Your task to perform on an android device: turn off location Image 0: 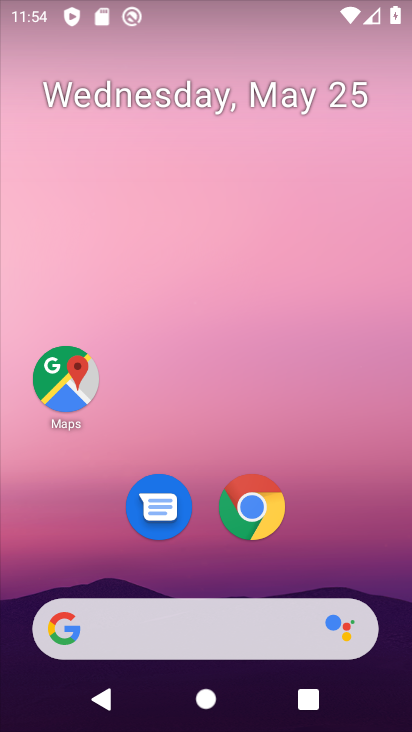
Step 0: drag from (212, 565) to (231, 137)
Your task to perform on an android device: turn off location Image 1: 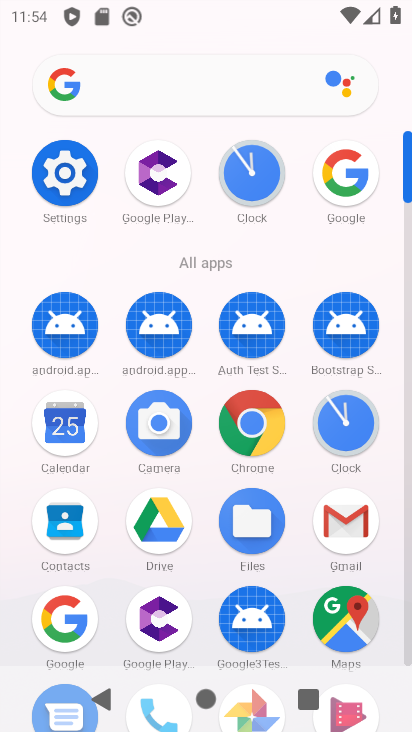
Step 1: click (67, 172)
Your task to perform on an android device: turn off location Image 2: 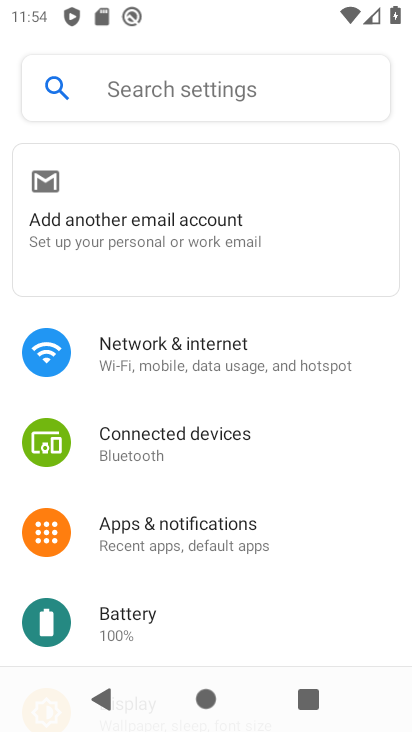
Step 2: drag from (180, 606) to (230, 173)
Your task to perform on an android device: turn off location Image 3: 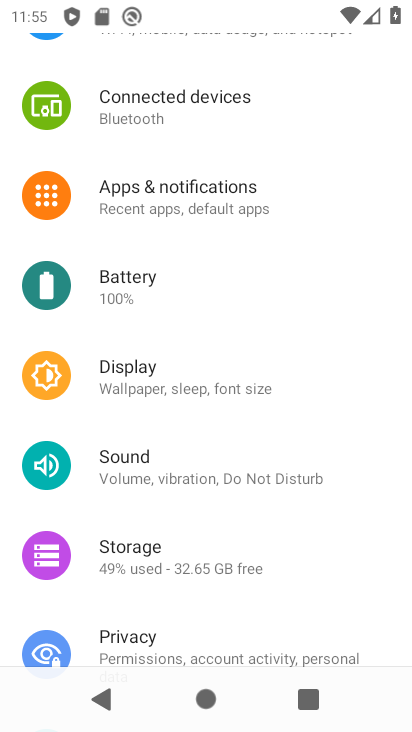
Step 3: drag from (175, 632) to (211, 266)
Your task to perform on an android device: turn off location Image 4: 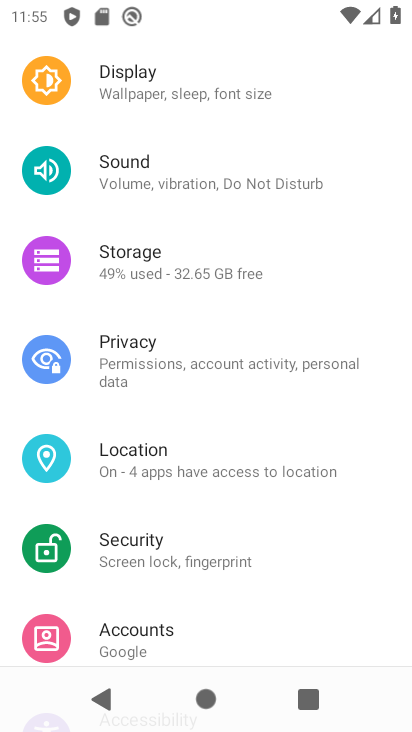
Step 4: click (200, 456)
Your task to perform on an android device: turn off location Image 5: 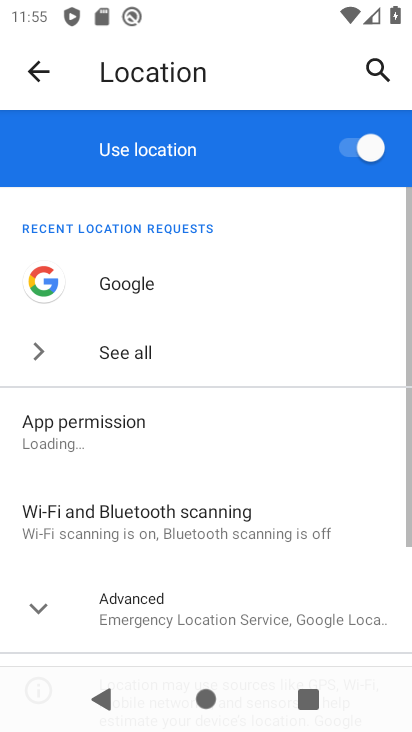
Step 5: click (356, 152)
Your task to perform on an android device: turn off location Image 6: 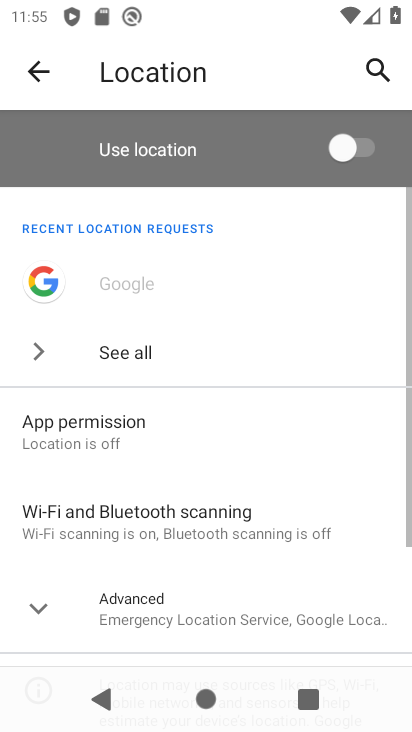
Step 6: task complete